Your task to perform on an android device: toggle show notifications on the lock screen Image 0: 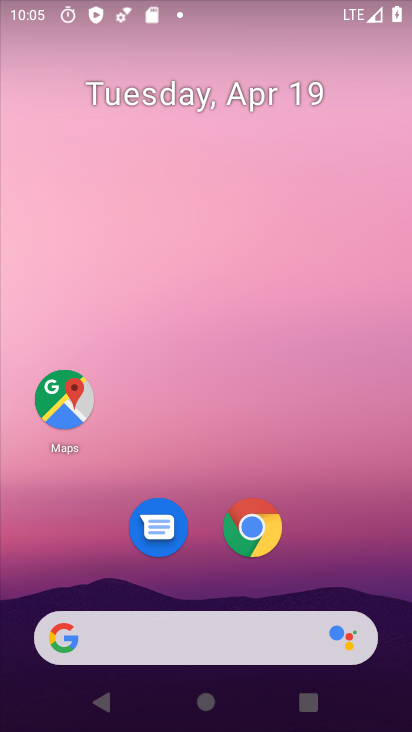
Step 0: drag from (237, 630) to (231, 212)
Your task to perform on an android device: toggle show notifications on the lock screen Image 1: 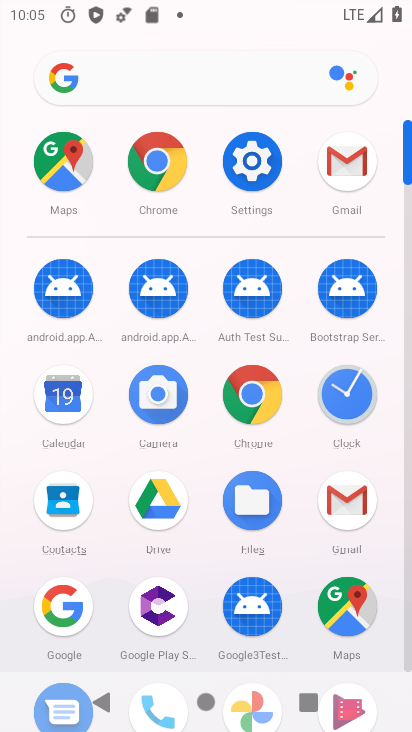
Step 1: click (261, 190)
Your task to perform on an android device: toggle show notifications on the lock screen Image 2: 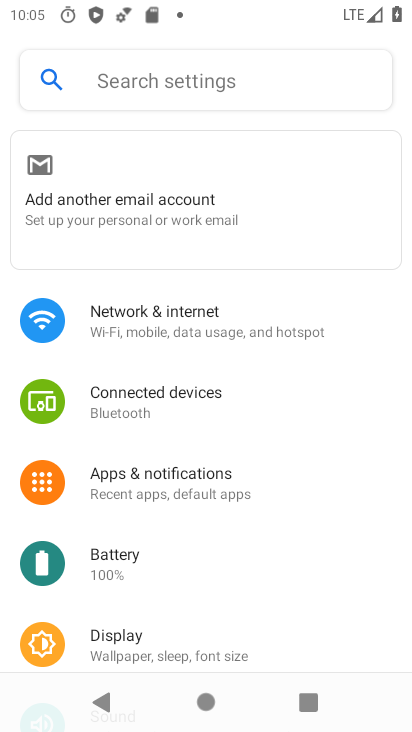
Step 2: click (195, 77)
Your task to perform on an android device: toggle show notifications on the lock screen Image 3: 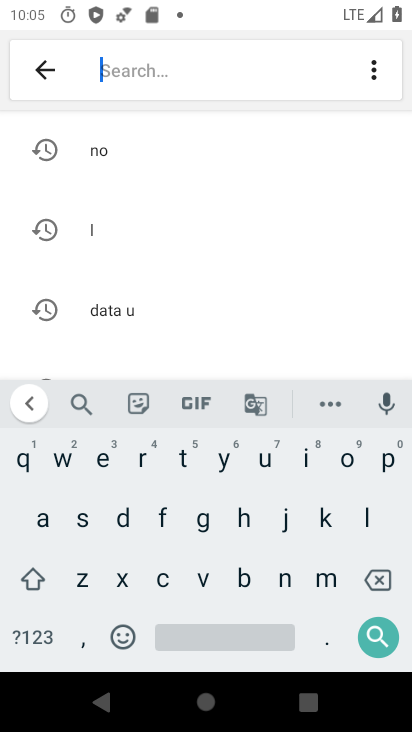
Step 3: click (151, 149)
Your task to perform on an android device: toggle show notifications on the lock screen Image 4: 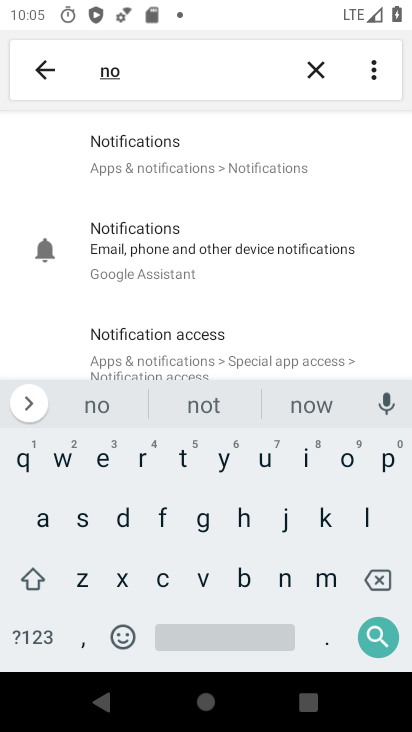
Step 4: click (204, 168)
Your task to perform on an android device: toggle show notifications on the lock screen Image 5: 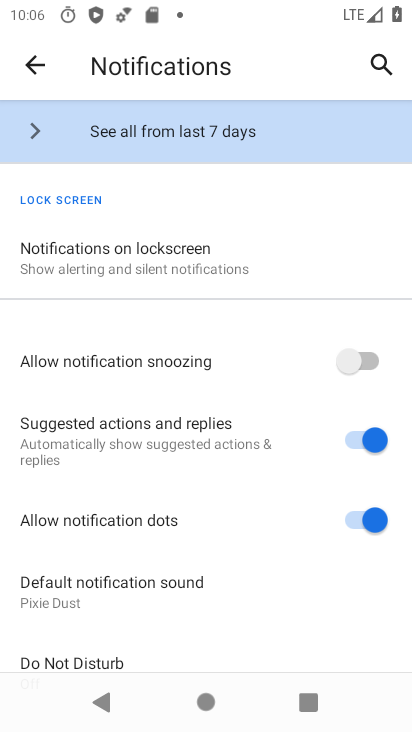
Step 5: click (155, 254)
Your task to perform on an android device: toggle show notifications on the lock screen Image 6: 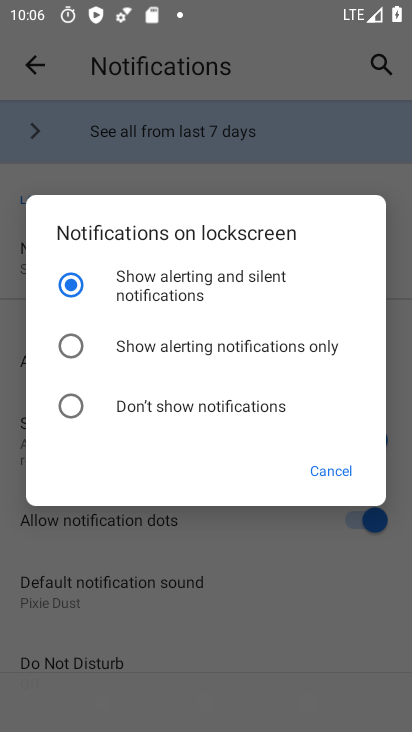
Step 6: task complete